Your task to perform on an android device: check data usage Image 0: 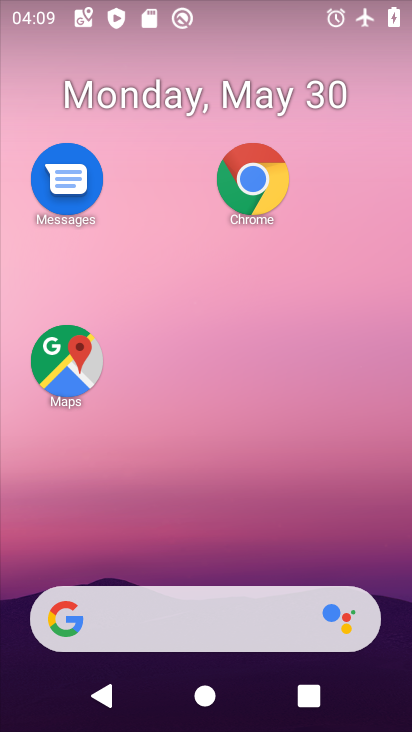
Step 0: click (65, 362)
Your task to perform on an android device: check data usage Image 1: 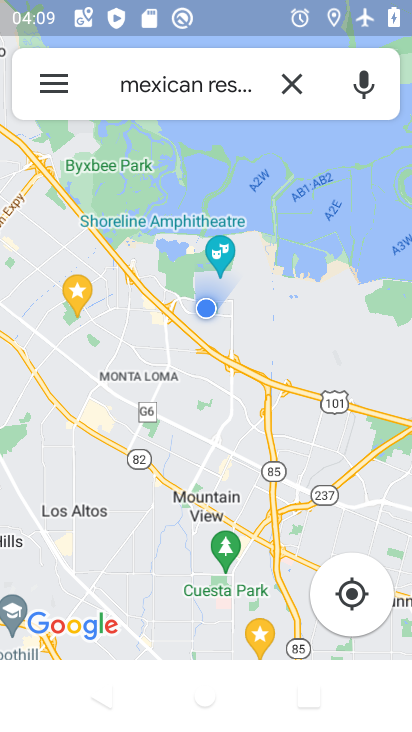
Step 1: press home button
Your task to perform on an android device: check data usage Image 2: 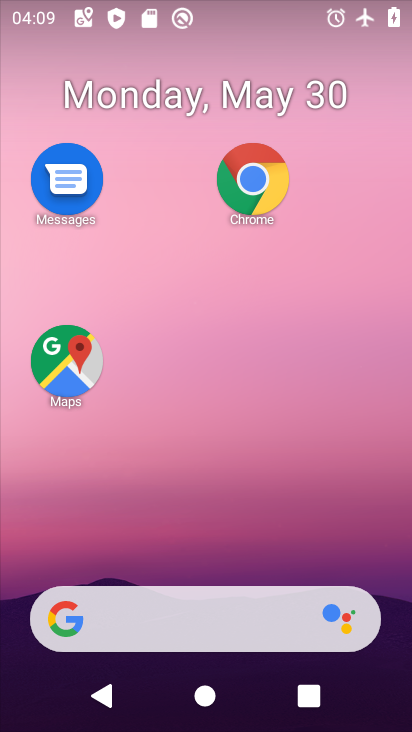
Step 2: drag from (258, 521) to (371, 26)
Your task to perform on an android device: check data usage Image 3: 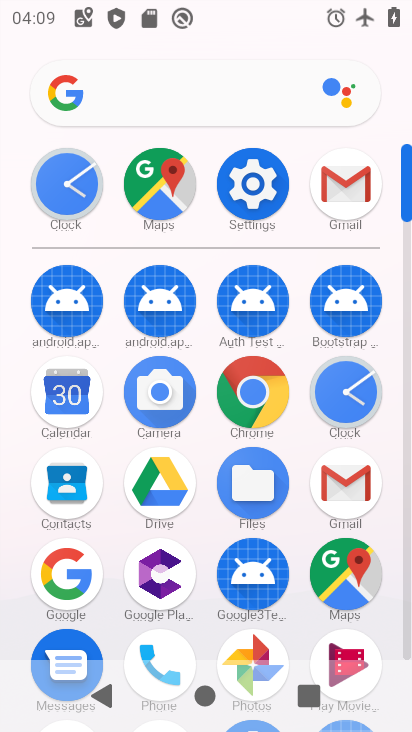
Step 3: click (250, 199)
Your task to perform on an android device: check data usage Image 4: 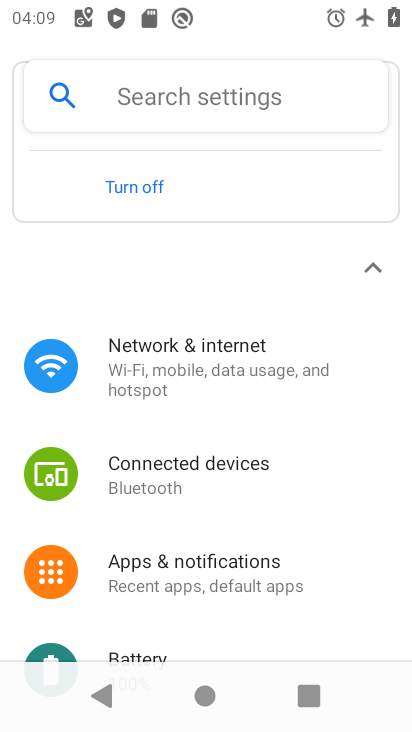
Step 4: click (132, 180)
Your task to perform on an android device: check data usage Image 5: 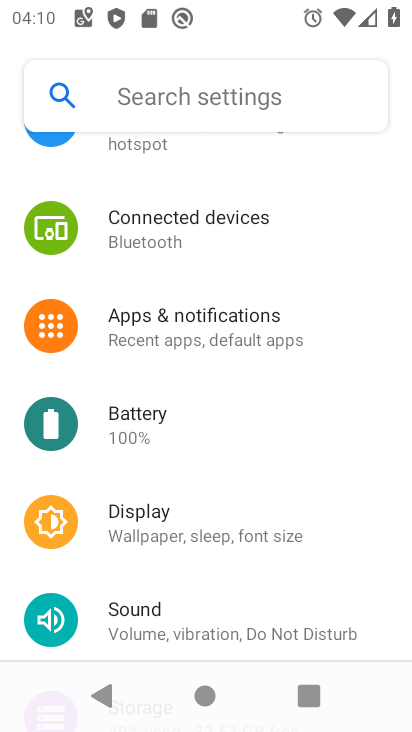
Step 5: press home button
Your task to perform on an android device: check data usage Image 6: 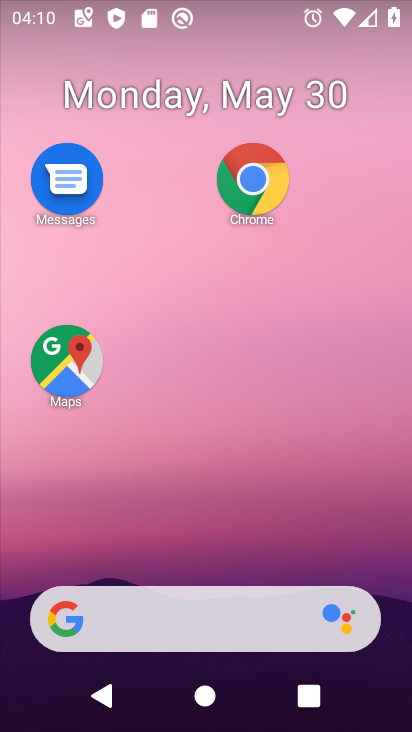
Step 6: click (81, 364)
Your task to perform on an android device: check data usage Image 7: 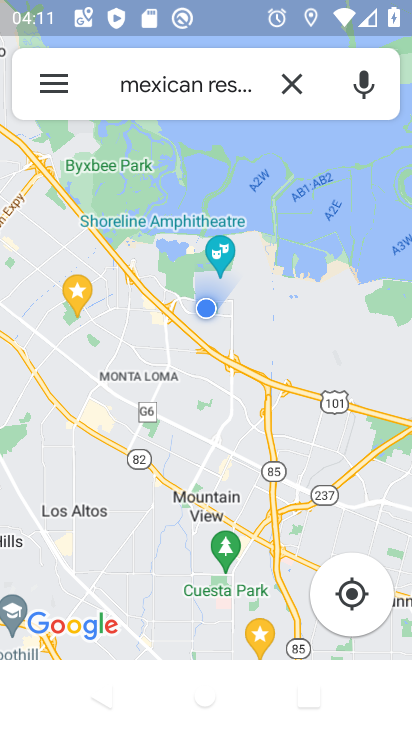
Step 7: click (285, 89)
Your task to perform on an android device: check data usage Image 8: 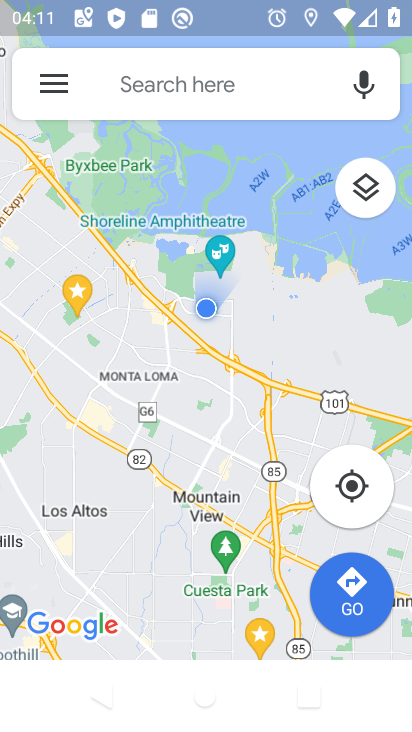
Step 8: click (145, 73)
Your task to perform on an android device: check data usage Image 9: 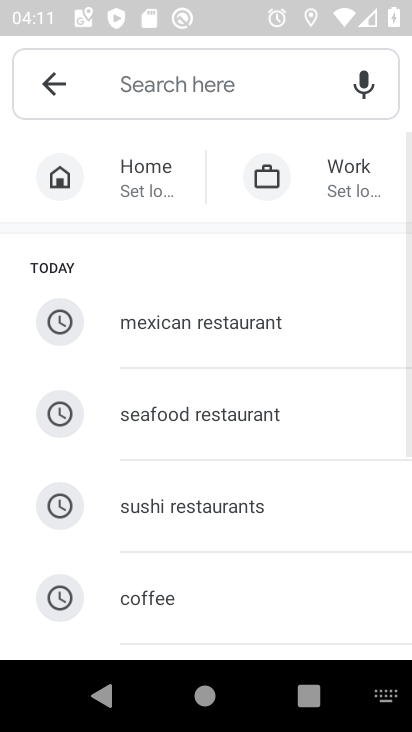
Step 9: click (192, 326)
Your task to perform on an android device: check data usage Image 10: 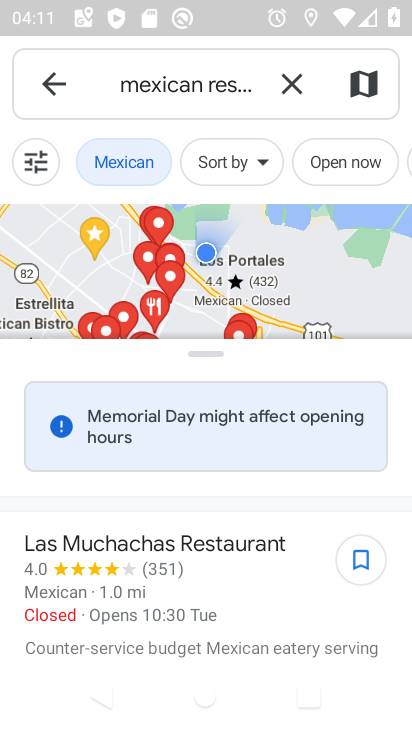
Step 10: task complete